Your task to perform on an android device: open the mobile data screen to see how much data has been used Image 0: 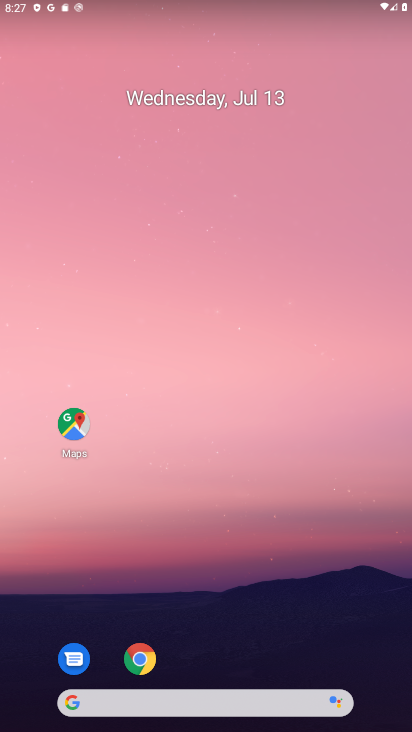
Step 0: drag from (275, 640) to (264, 234)
Your task to perform on an android device: open the mobile data screen to see how much data has been used Image 1: 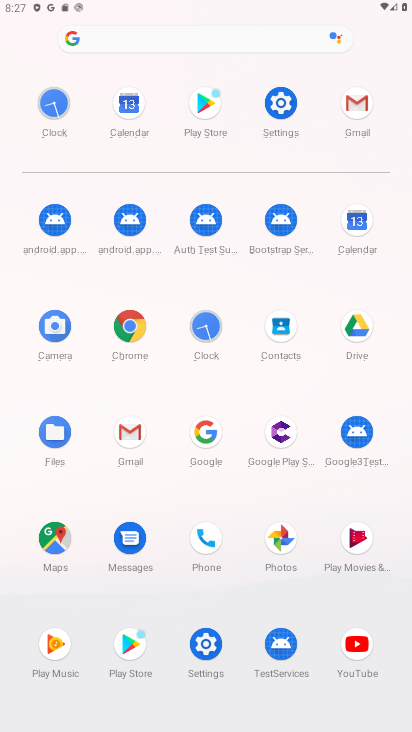
Step 1: click (277, 112)
Your task to perform on an android device: open the mobile data screen to see how much data has been used Image 2: 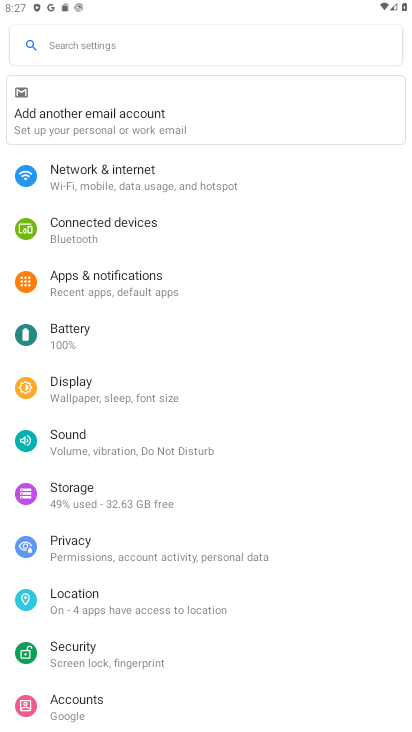
Step 2: click (219, 174)
Your task to perform on an android device: open the mobile data screen to see how much data has been used Image 3: 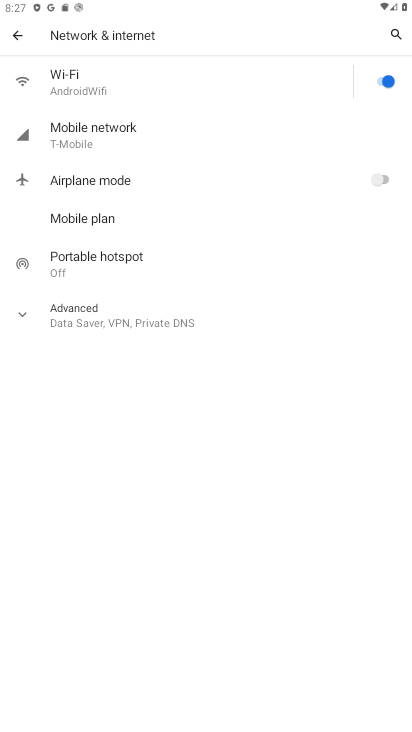
Step 3: click (181, 126)
Your task to perform on an android device: open the mobile data screen to see how much data has been used Image 4: 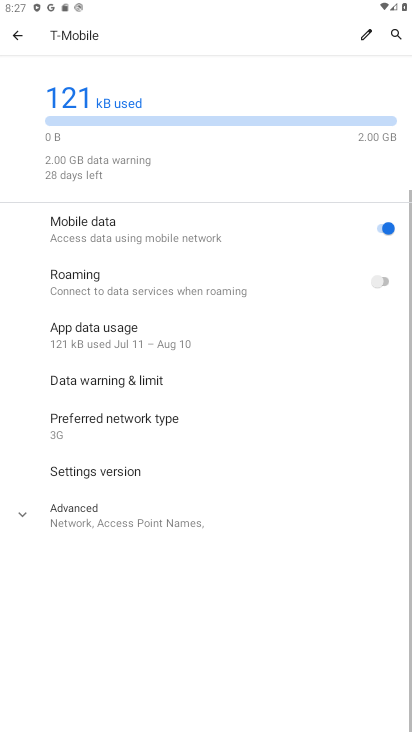
Step 4: task complete